Your task to perform on an android device: Open battery settings Image 0: 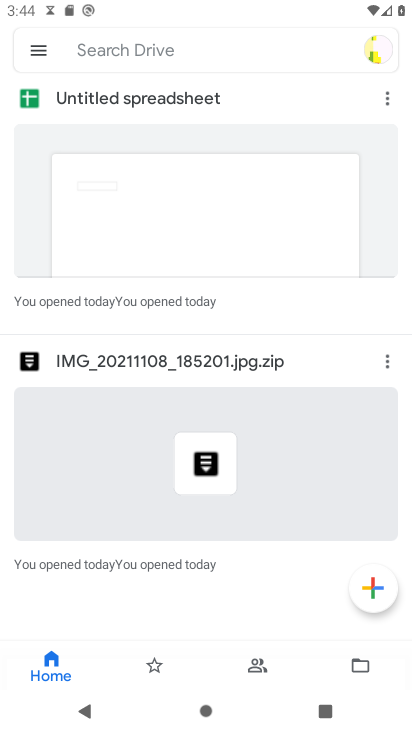
Step 0: press home button
Your task to perform on an android device: Open battery settings Image 1: 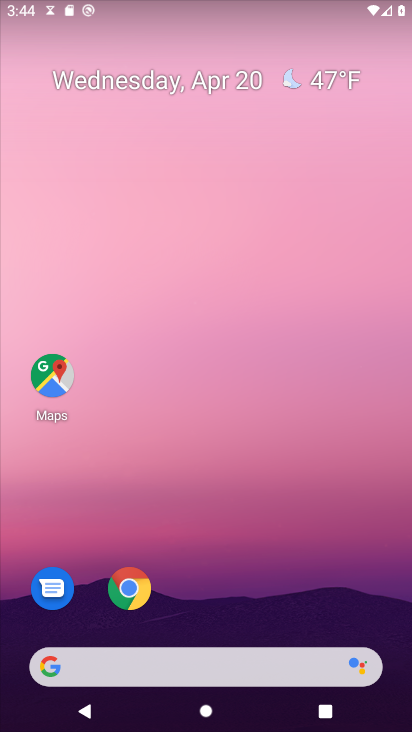
Step 1: drag from (221, 599) to (320, 78)
Your task to perform on an android device: Open battery settings Image 2: 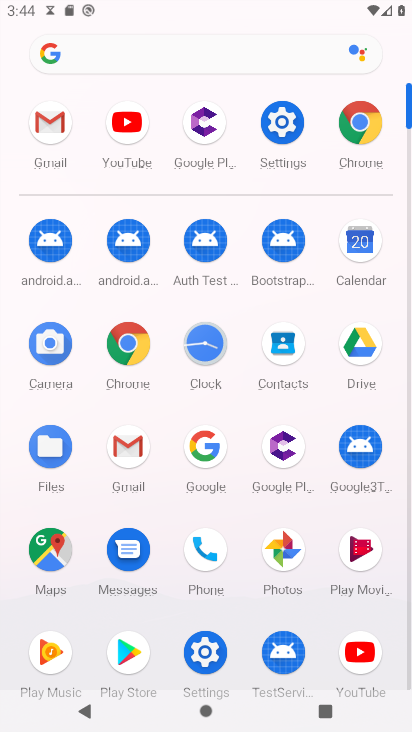
Step 2: click (287, 135)
Your task to perform on an android device: Open battery settings Image 3: 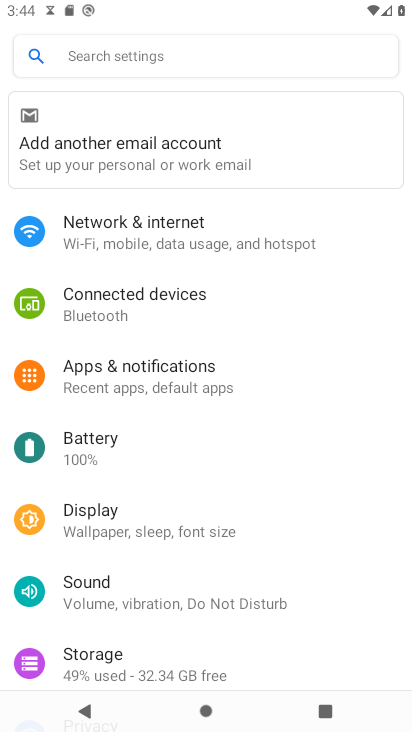
Step 3: click (164, 447)
Your task to perform on an android device: Open battery settings Image 4: 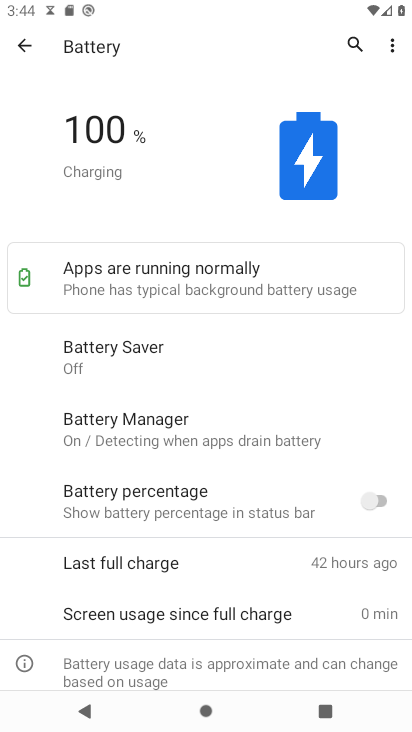
Step 4: task complete